Your task to perform on an android device: Search for pizza restaurants on Maps Image 0: 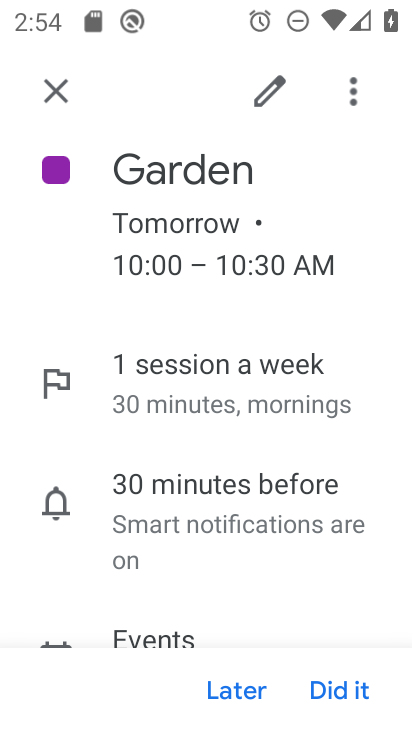
Step 0: press back button
Your task to perform on an android device: Search for pizza restaurants on Maps Image 1: 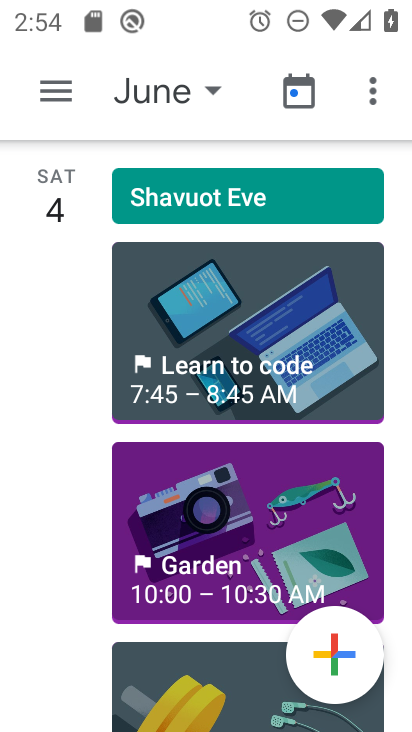
Step 1: press home button
Your task to perform on an android device: Search for pizza restaurants on Maps Image 2: 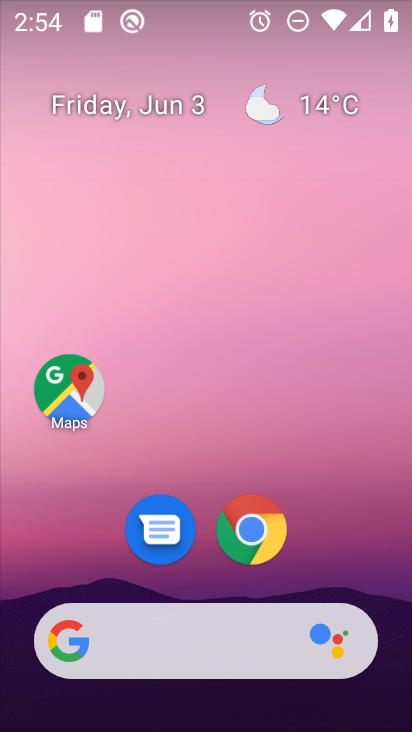
Step 2: drag from (350, 565) to (328, 224)
Your task to perform on an android device: Search for pizza restaurants on Maps Image 3: 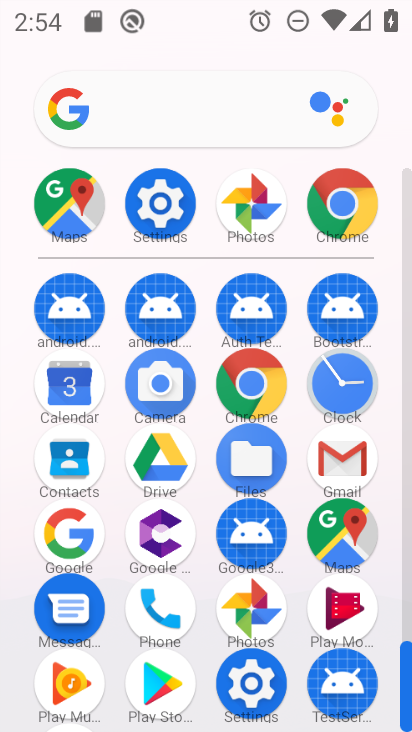
Step 3: click (357, 529)
Your task to perform on an android device: Search for pizza restaurants on Maps Image 4: 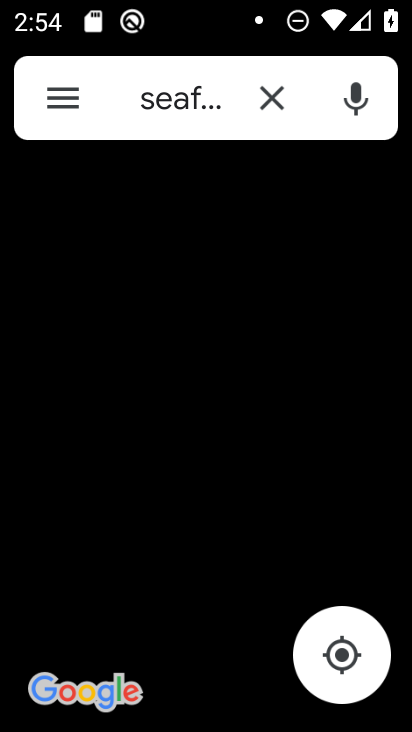
Step 4: click (267, 97)
Your task to perform on an android device: Search for pizza restaurants on Maps Image 5: 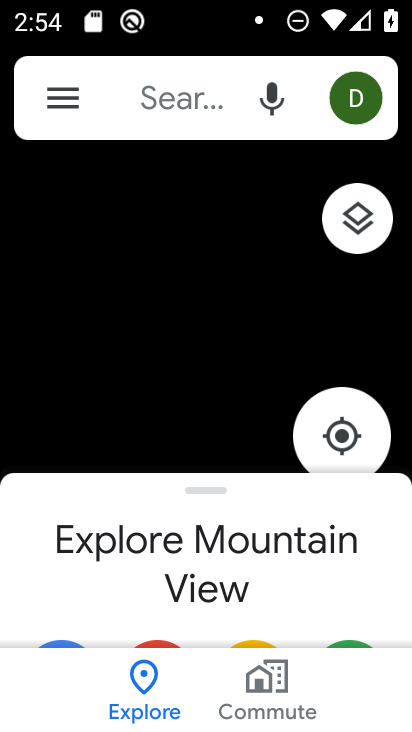
Step 5: click (186, 102)
Your task to perform on an android device: Search for pizza restaurants on Maps Image 6: 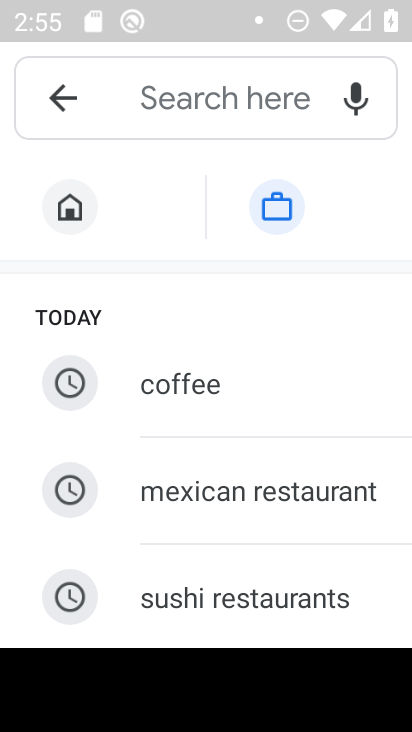
Step 6: type "pizzaa restaurants"
Your task to perform on an android device: Search for pizza restaurants on Maps Image 7: 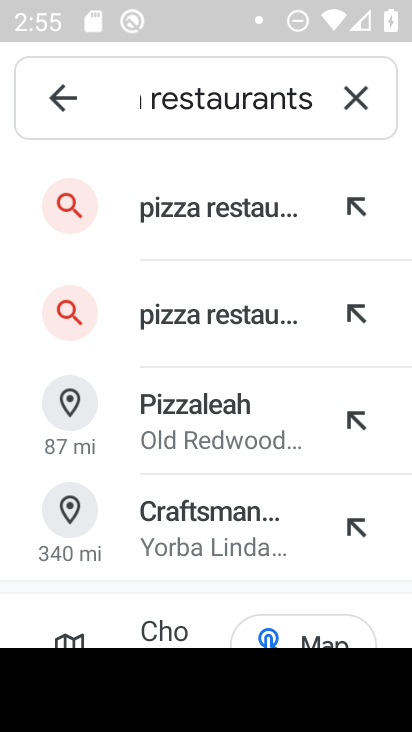
Step 7: click (221, 226)
Your task to perform on an android device: Search for pizza restaurants on Maps Image 8: 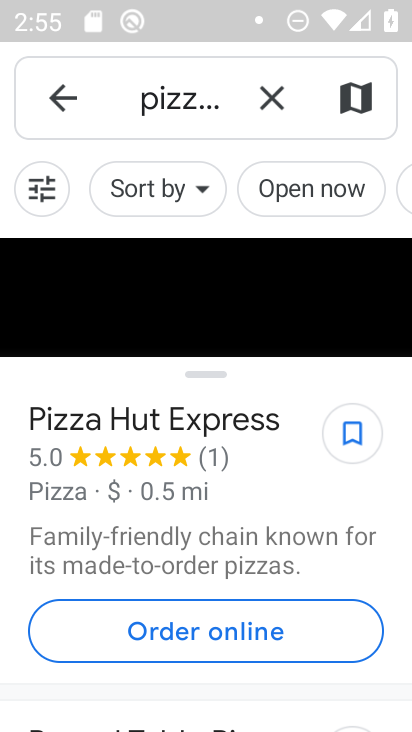
Step 8: task complete